Your task to perform on an android device: check storage Image 0: 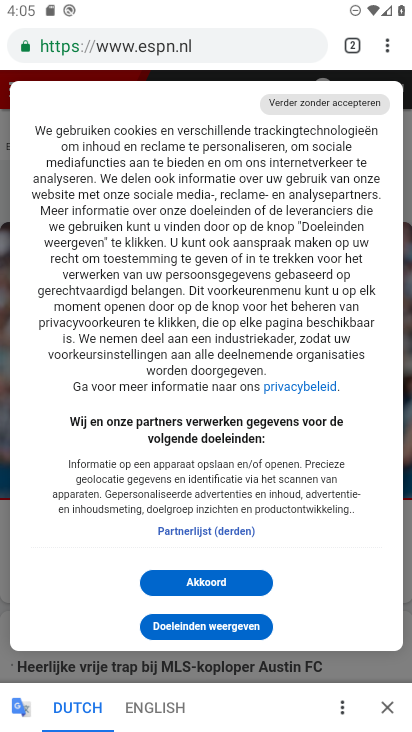
Step 0: press home button
Your task to perform on an android device: check storage Image 1: 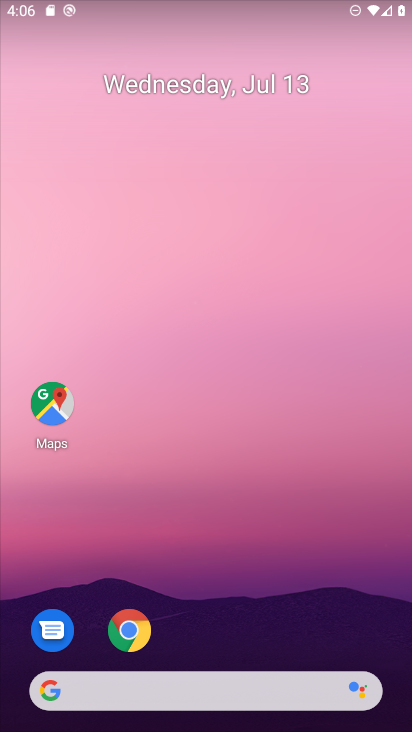
Step 1: drag from (213, 625) to (133, 120)
Your task to perform on an android device: check storage Image 2: 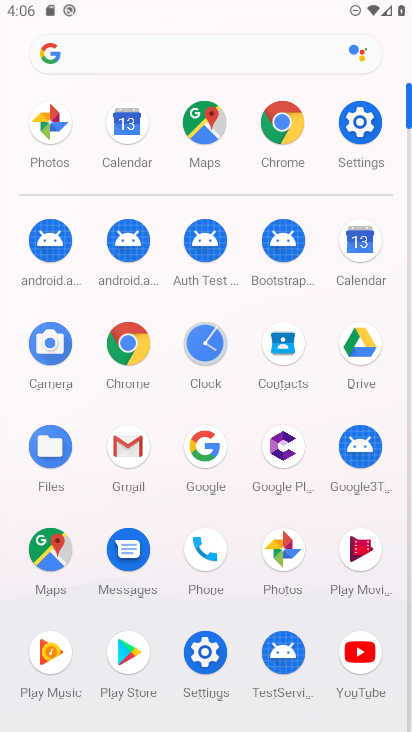
Step 2: click (362, 124)
Your task to perform on an android device: check storage Image 3: 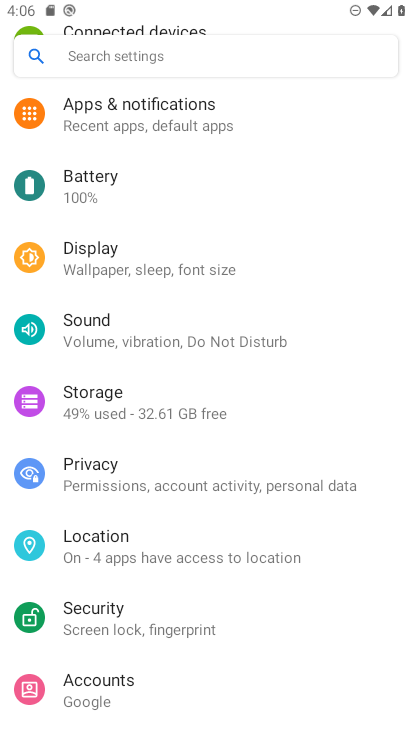
Step 3: click (129, 421)
Your task to perform on an android device: check storage Image 4: 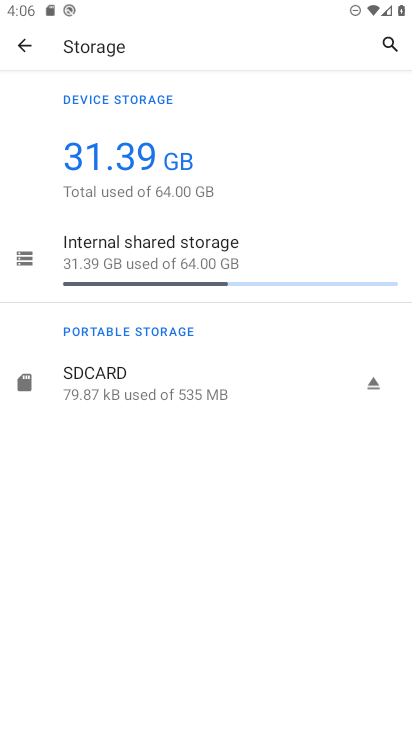
Step 4: task complete